Your task to perform on an android device: Open Android settings Image 0: 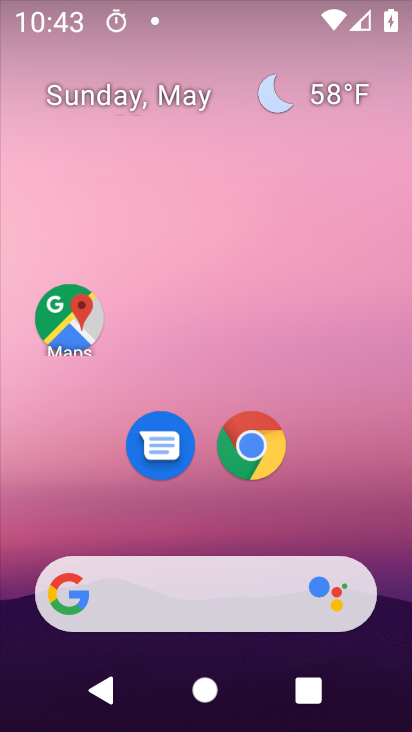
Step 0: drag from (333, 520) to (270, 65)
Your task to perform on an android device: Open Android settings Image 1: 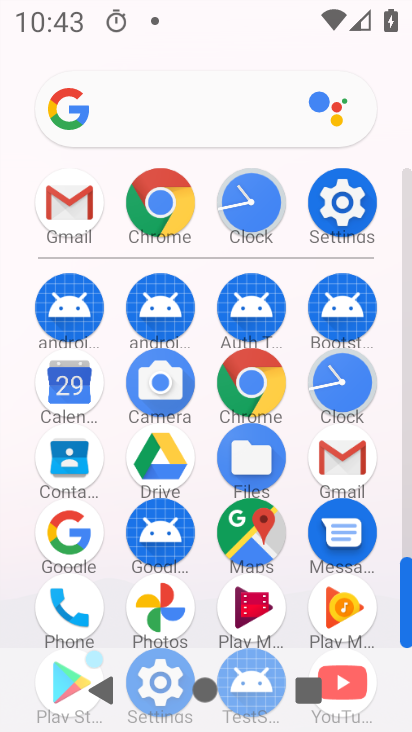
Step 1: click (342, 200)
Your task to perform on an android device: Open Android settings Image 2: 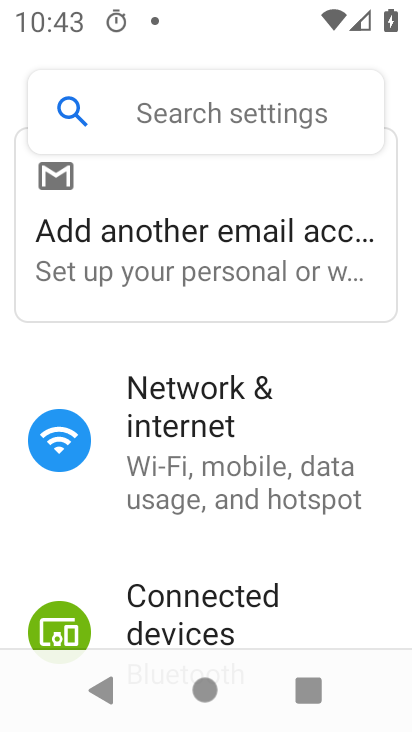
Step 2: task complete